Your task to perform on an android device: open wifi settings Image 0: 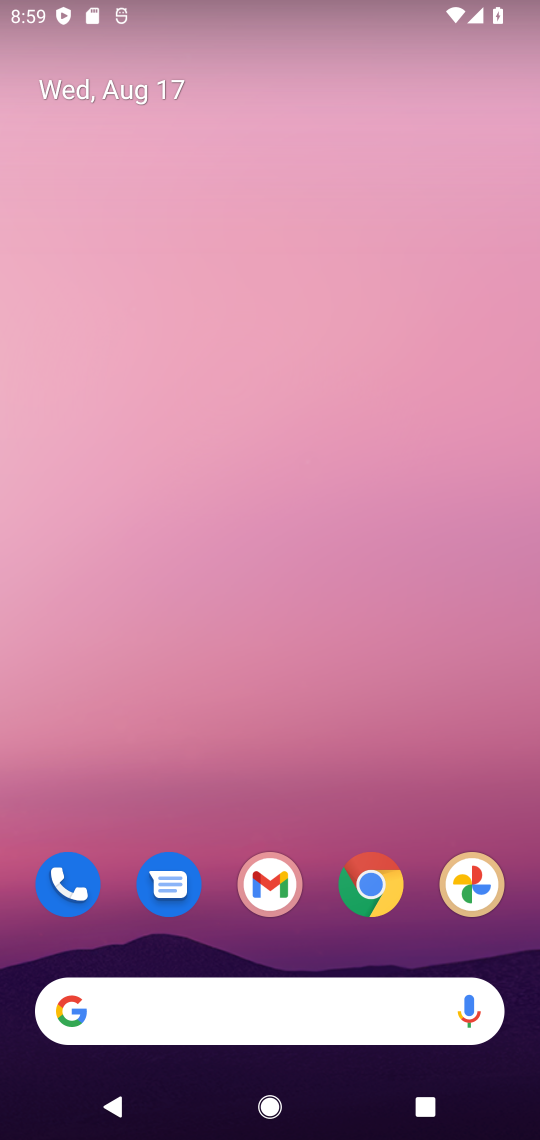
Step 0: drag from (227, 757) to (198, 22)
Your task to perform on an android device: open wifi settings Image 1: 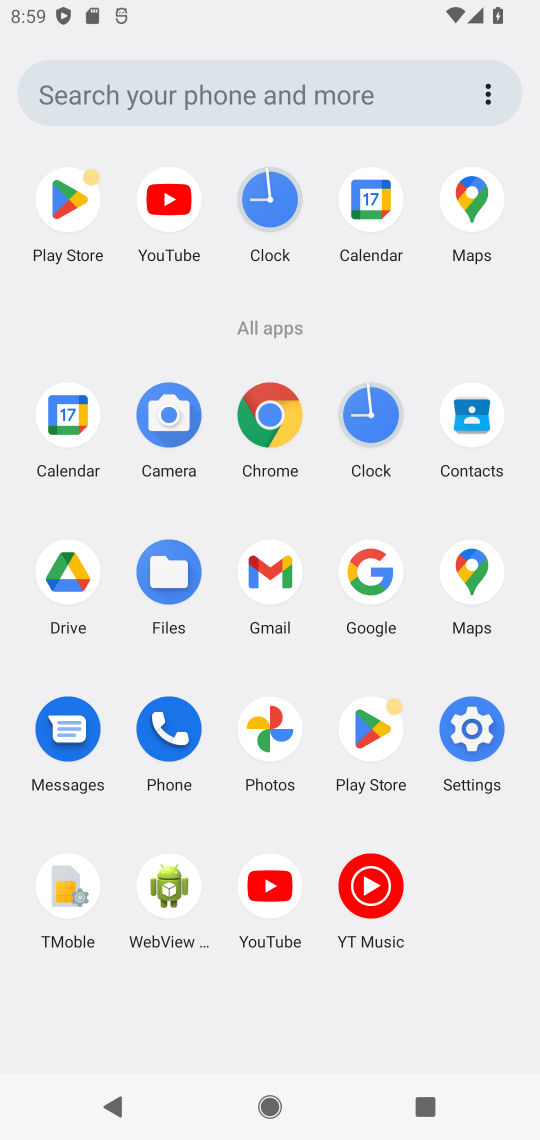
Step 1: click (487, 734)
Your task to perform on an android device: open wifi settings Image 2: 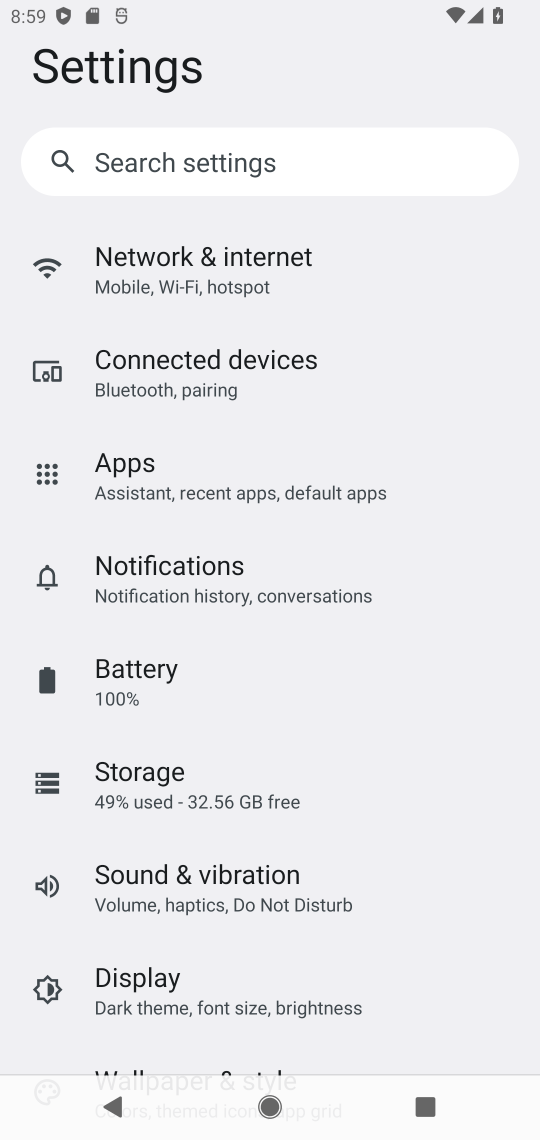
Step 2: click (261, 274)
Your task to perform on an android device: open wifi settings Image 3: 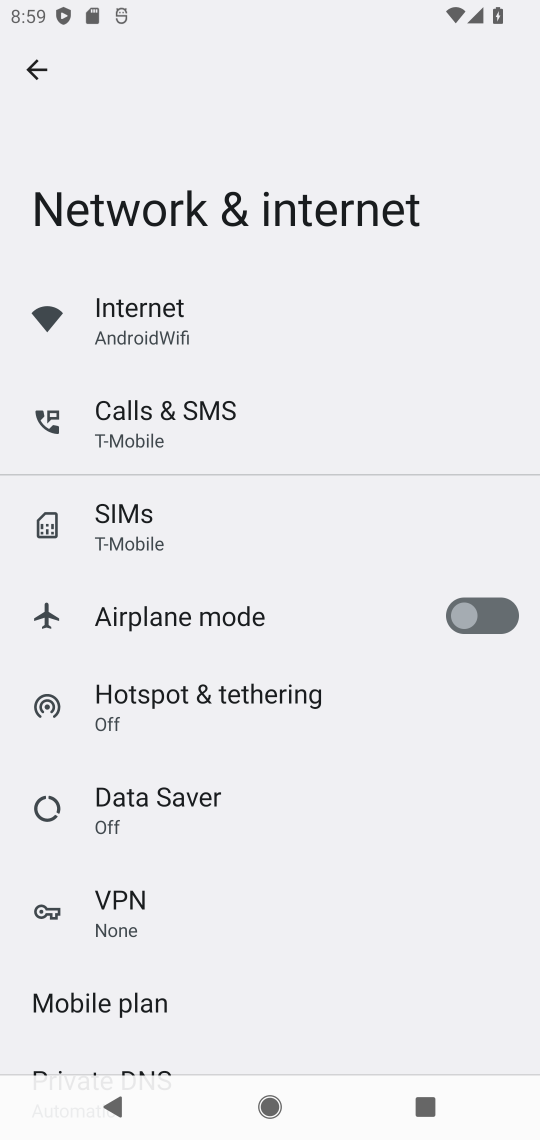
Step 3: click (208, 317)
Your task to perform on an android device: open wifi settings Image 4: 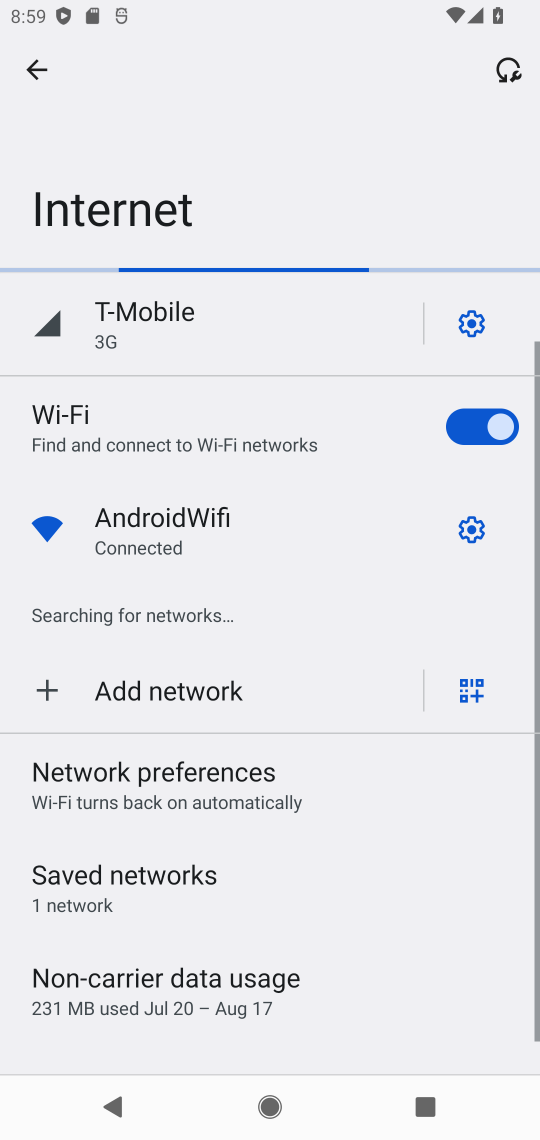
Step 4: task complete